Your task to perform on an android device: What's the weather like in Paris? Image 0: 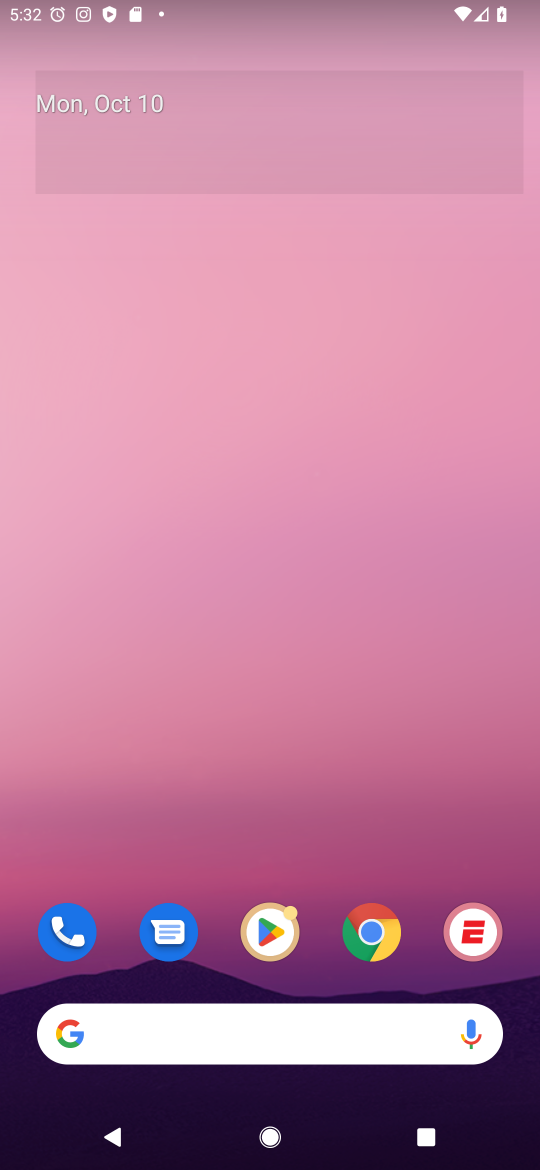
Step 0: press home button
Your task to perform on an android device: What's the weather like in Paris? Image 1: 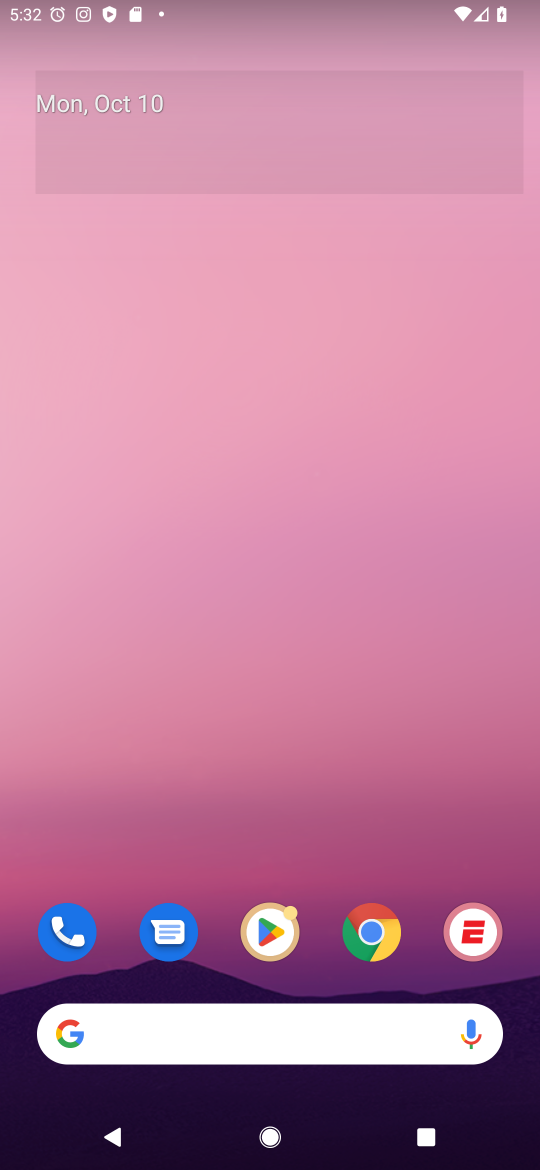
Step 1: click (284, 1024)
Your task to perform on an android device: What's the weather like in Paris? Image 2: 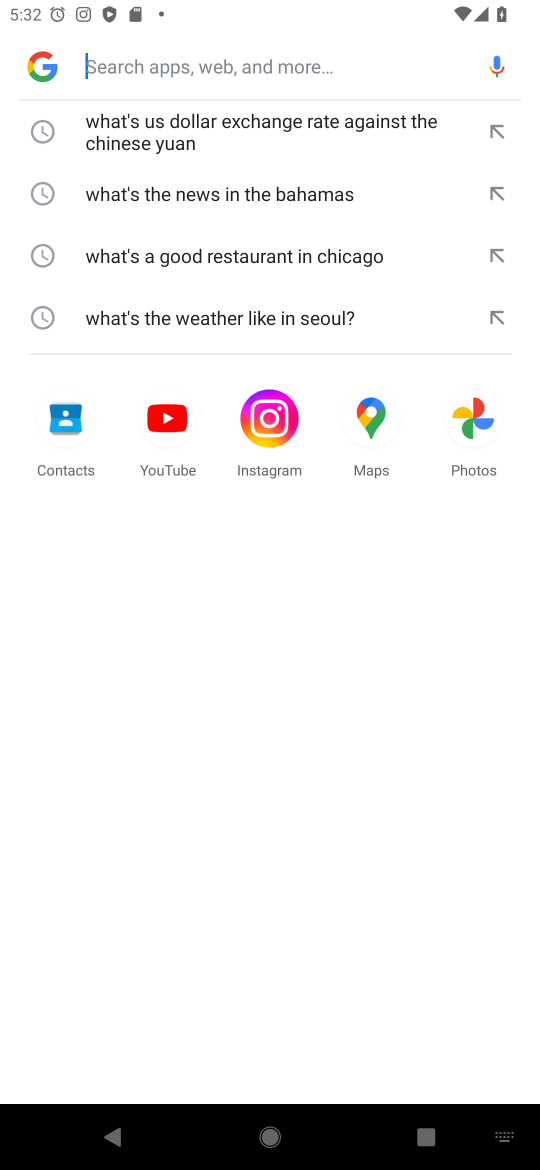
Step 2: type "What's the weather like in Paris"
Your task to perform on an android device: What's the weather like in Paris? Image 3: 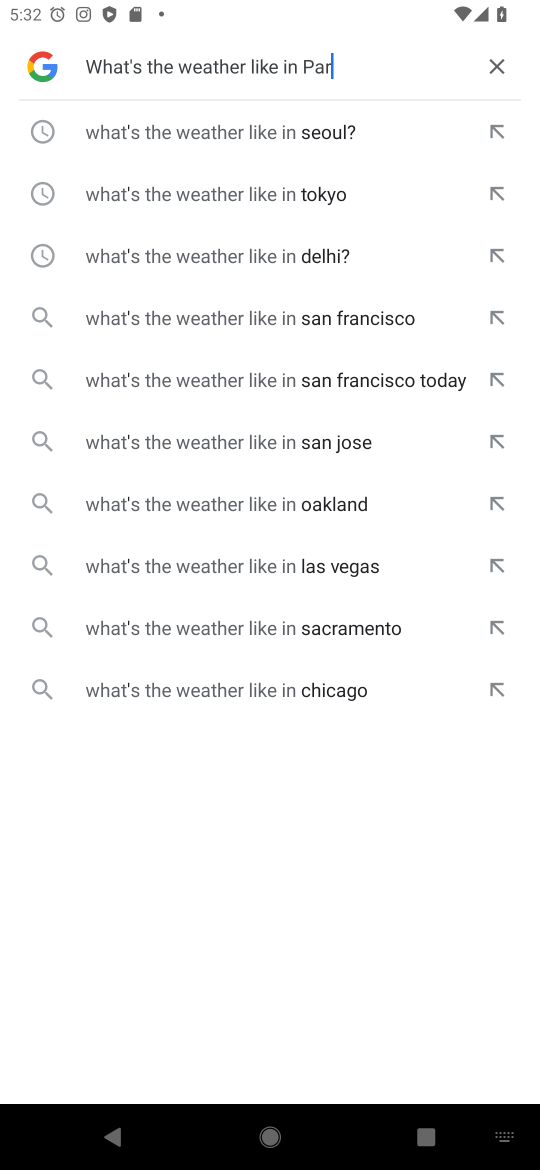
Step 3: press enter
Your task to perform on an android device: What's the weather like in Paris? Image 4: 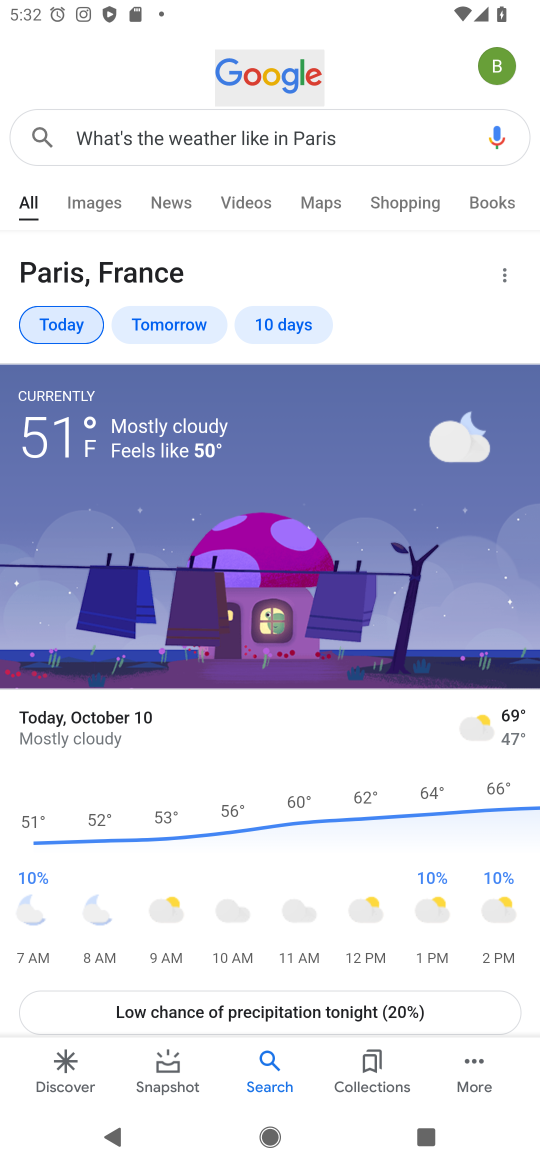
Step 4: task complete